Your task to perform on an android device: turn on improve location accuracy Image 0: 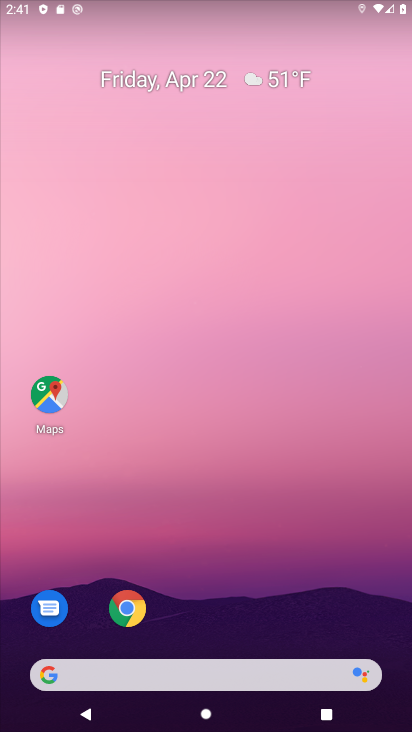
Step 0: drag from (236, 477) to (276, 127)
Your task to perform on an android device: turn on improve location accuracy Image 1: 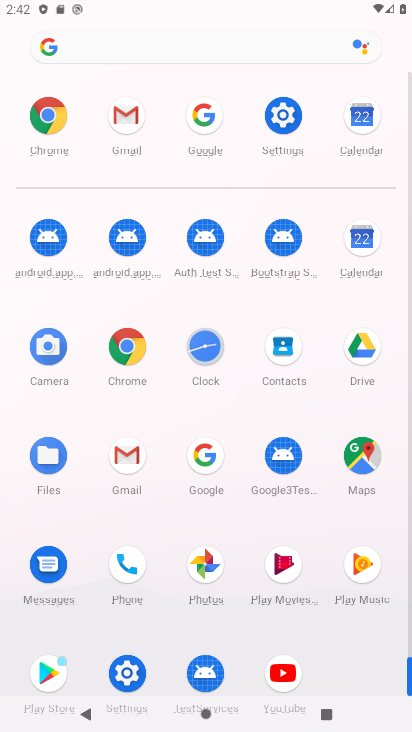
Step 1: click (287, 111)
Your task to perform on an android device: turn on improve location accuracy Image 2: 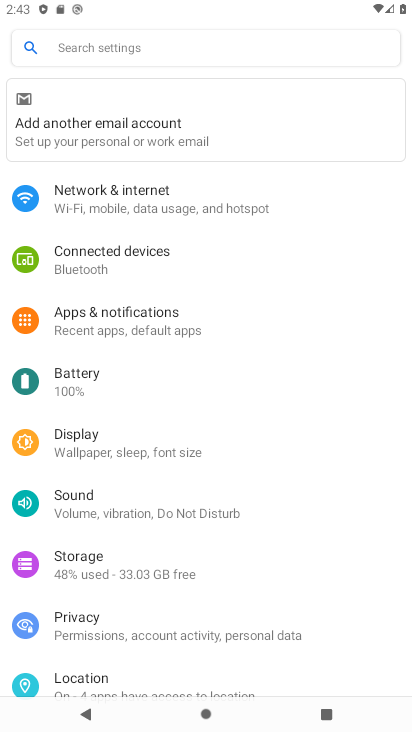
Step 2: click (176, 670)
Your task to perform on an android device: turn on improve location accuracy Image 3: 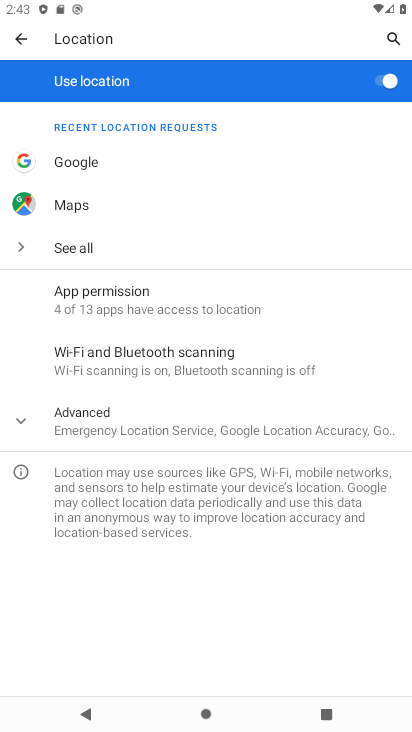
Step 3: click (156, 422)
Your task to perform on an android device: turn on improve location accuracy Image 4: 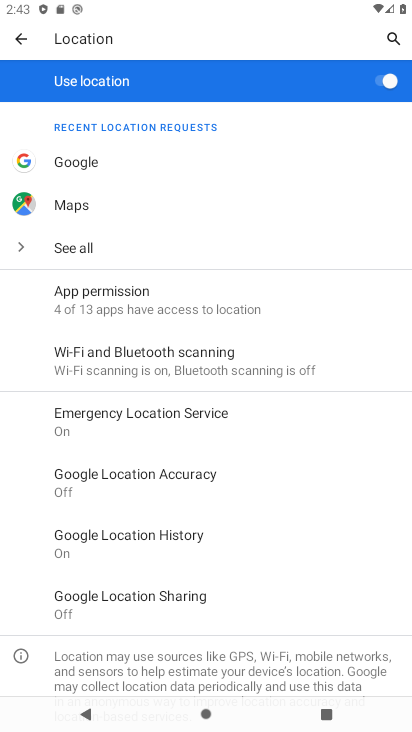
Step 4: click (183, 480)
Your task to perform on an android device: turn on improve location accuracy Image 5: 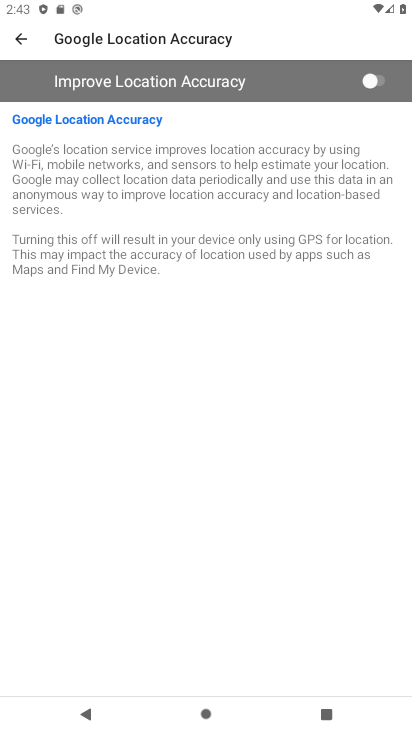
Step 5: click (379, 77)
Your task to perform on an android device: turn on improve location accuracy Image 6: 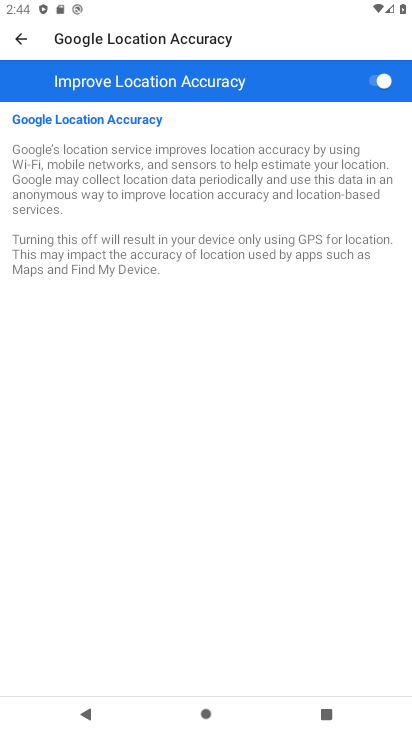
Step 6: task complete